Your task to perform on an android device: Go to battery settings Image 0: 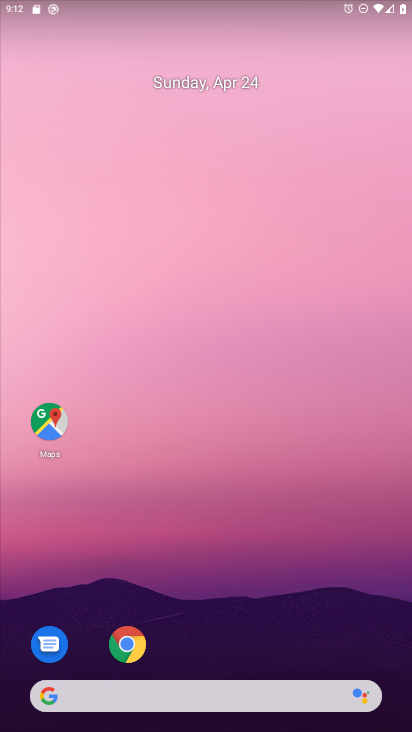
Step 0: drag from (202, 669) to (202, 112)
Your task to perform on an android device: Go to battery settings Image 1: 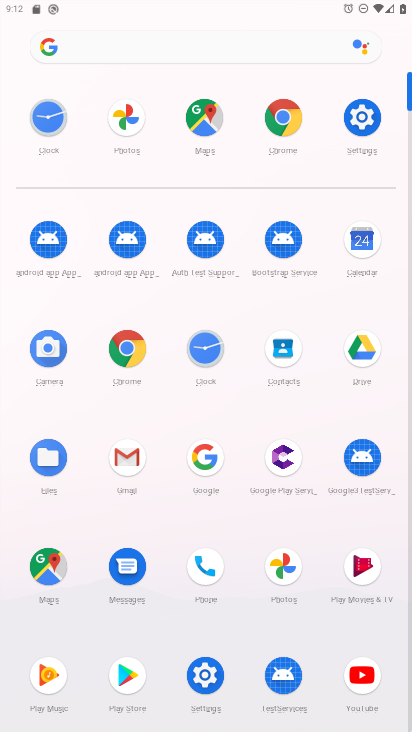
Step 1: click (355, 113)
Your task to perform on an android device: Go to battery settings Image 2: 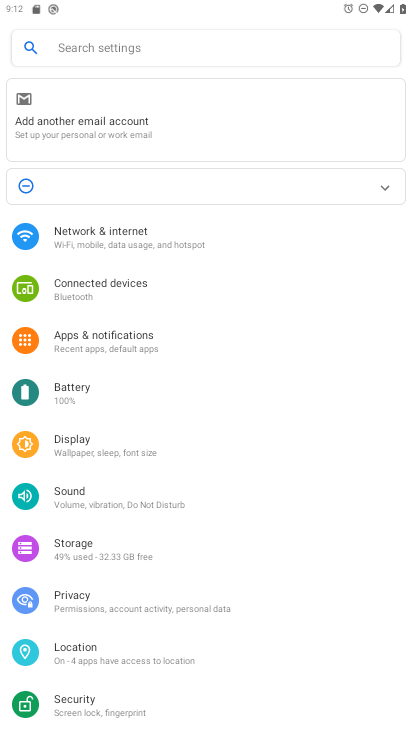
Step 2: click (61, 407)
Your task to perform on an android device: Go to battery settings Image 3: 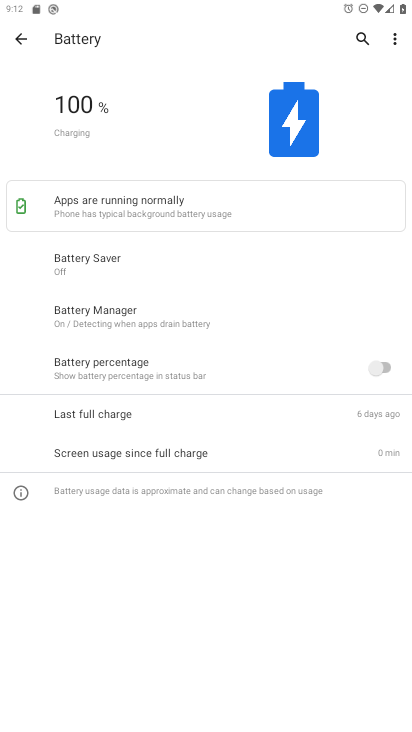
Step 3: task complete